Your task to perform on an android device: clear history in the chrome app Image 0: 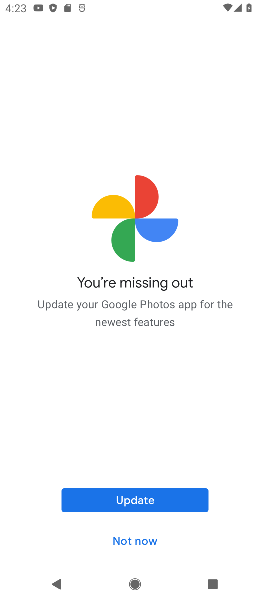
Step 0: press home button
Your task to perform on an android device: clear history in the chrome app Image 1: 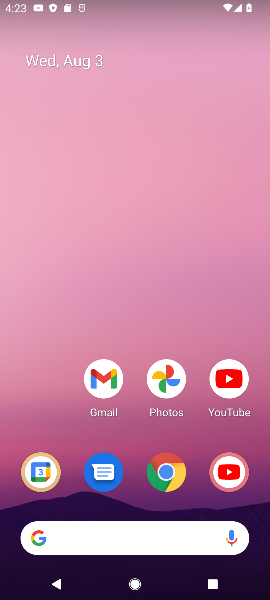
Step 1: drag from (124, 433) to (209, 77)
Your task to perform on an android device: clear history in the chrome app Image 2: 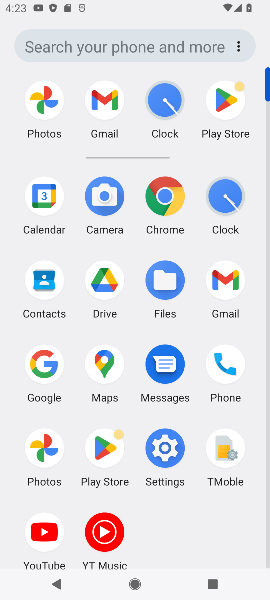
Step 2: click (160, 195)
Your task to perform on an android device: clear history in the chrome app Image 3: 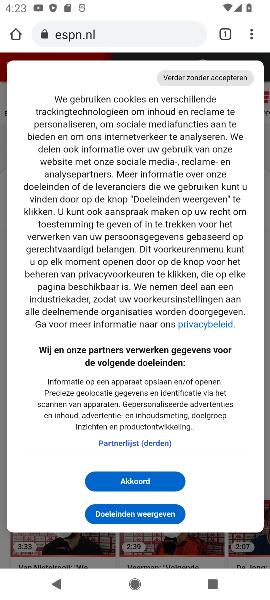
Step 3: drag from (254, 31) to (138, 187)
Your task to perform on an android device: clear history in the chrome app Image 4: 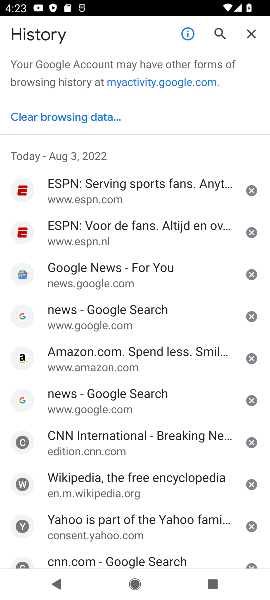
Step 4: click (102, 117)
Your task to perform on an android device: clear history in the chrome app Image 5: 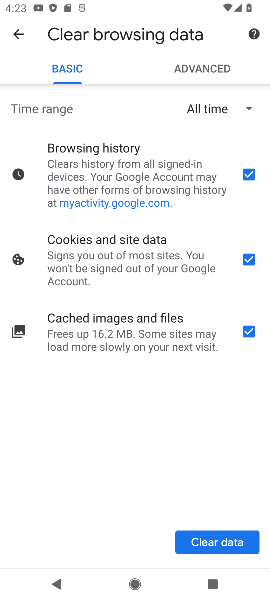
Step 5: click (194, 543)
Your task to perform on an android device: clear history in the chrome app Image 6: 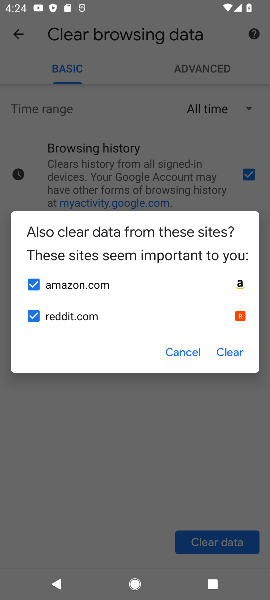
Step 6: click (237, 353)
Your task to perform on an android device: clear history in the chrome app Image 7: 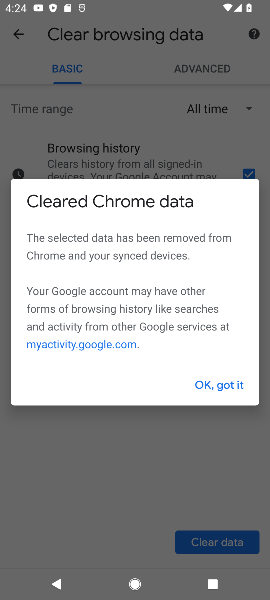
Step 7: click (217, 382)
Your task to perform on an android device: clear history in the chrome app Image 8: 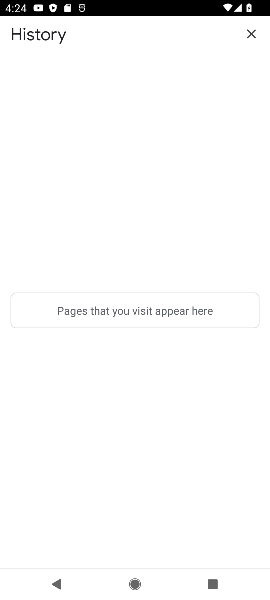
Step 8: task complete